Your task to perform on an android device: Open settings Image 0: 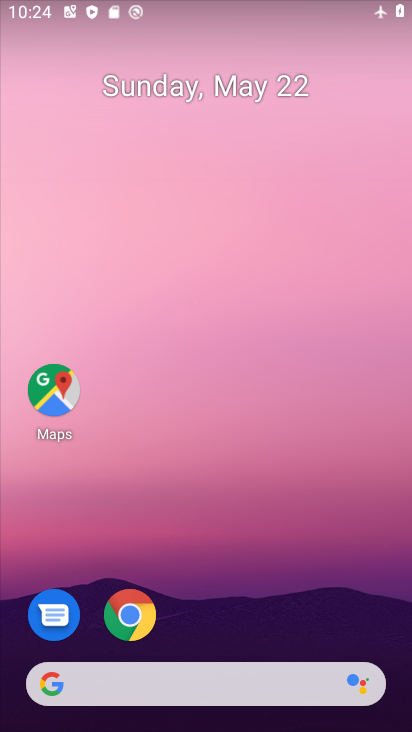
Step 0: drag from (293, 502) to (241, 18)
Your task to perform on an android device: Open settings Image 1: 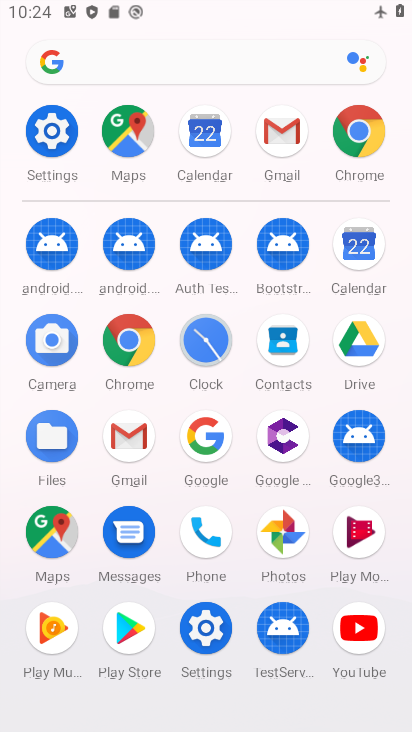
Step 1: click (44, 116)
Your task to perform on an android device: Open settings Image 2: 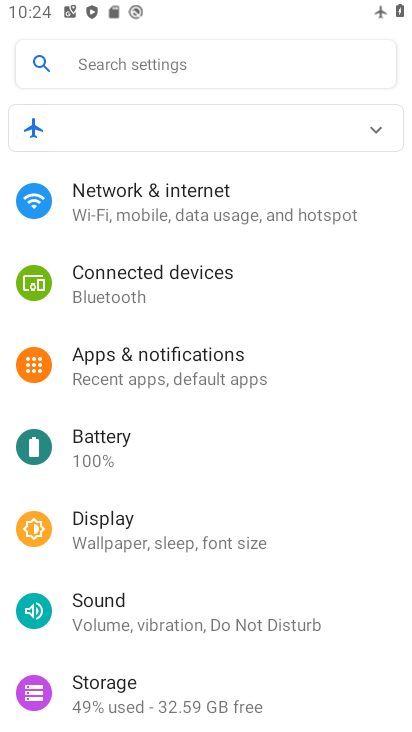
Step 2: task complete